Your task to perform on an android device: turn on data saver in the chrome app Image 0: 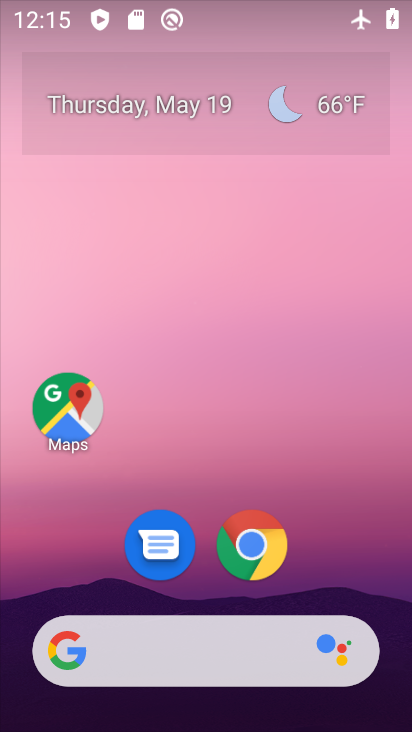
Step 0: click (243, 562)
Your task to perform on an android device: turn on data saver in the chrome app Image 1: 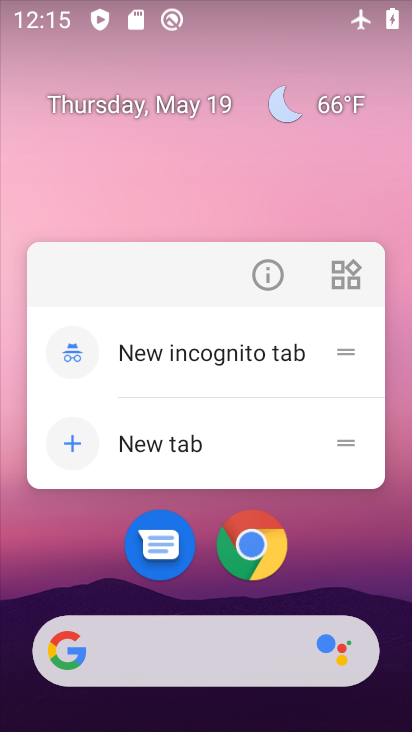
Step 1: click (243, 558)
Your task to perform on an android device: turn on data saver in the chrome app Image 2: 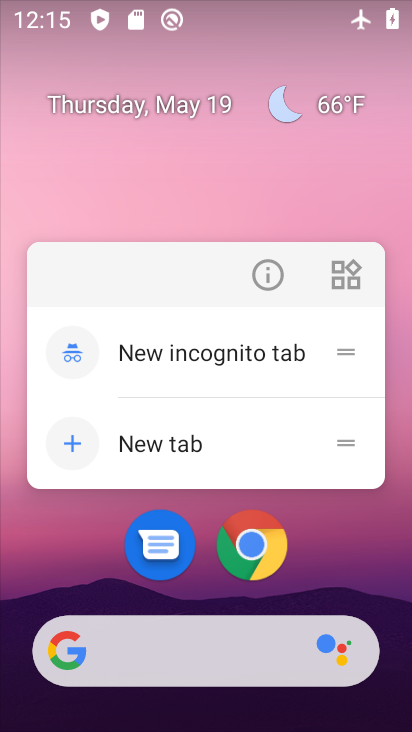
Step 2: click (243, 558)
Your task to perform on an android device: turn on data saver in the chrome app Image 3: 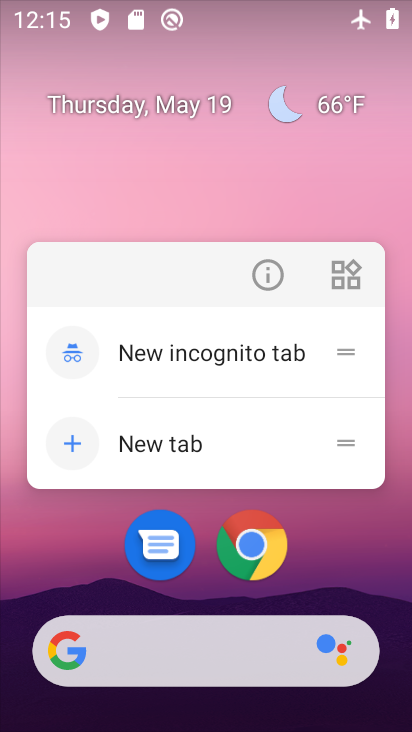
Step 3: click (242, 558)
Your task to perform on an android device: turn on data saver in the chrome app Image 4: 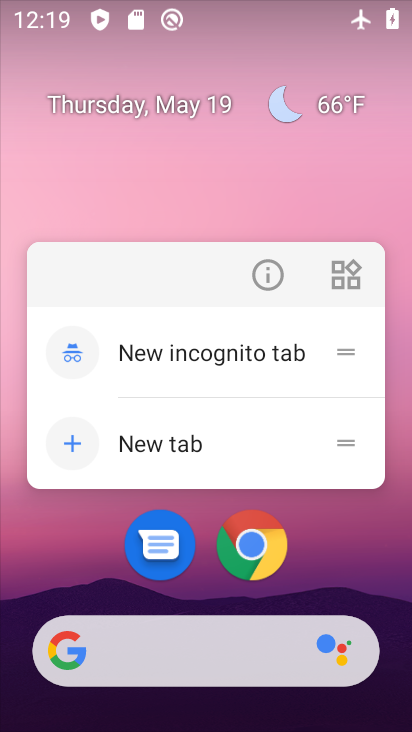
Step 4: click (265, 716)
Your task to perform on an android device: turn on data saver in the chrome app Image 5: 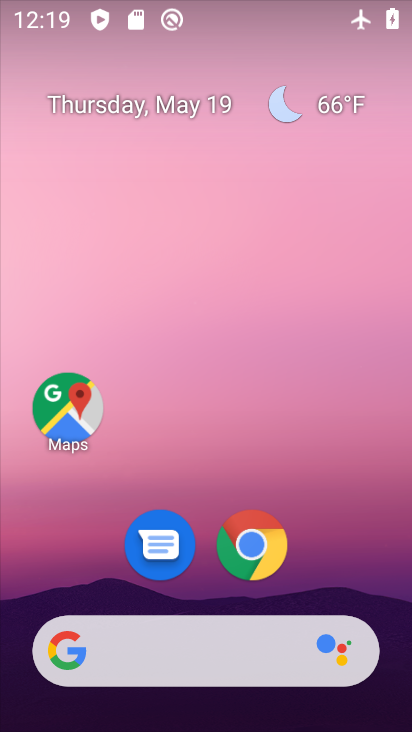
Step 5: click (247, 558)
Your task to perform on an android device: turn on data saver in the chrome app Image 6: 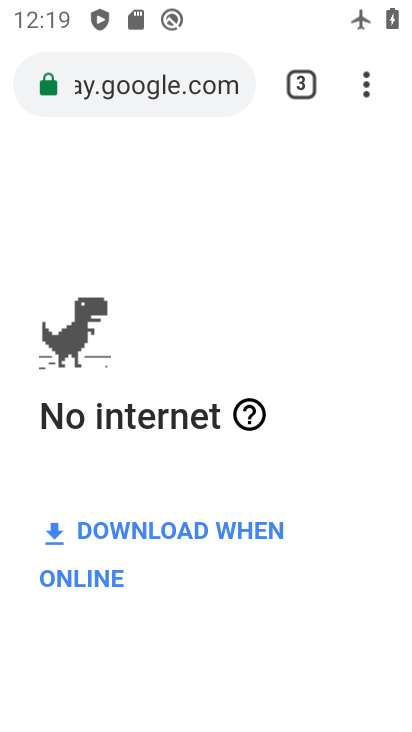
Step 6: click (365, 83)
Your task to perform on an android device: turn on data saver in the chrome app Image 7: 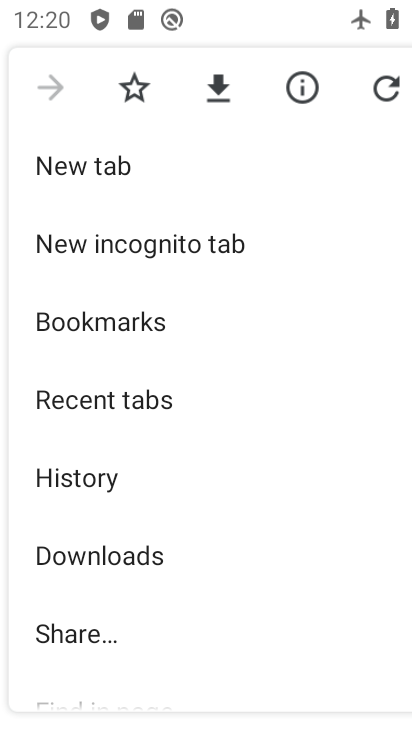
Step 7: drag from (86, 622) to (127, 212)
Your task to perform on an android device: turn on data saver in the chrome app Image 8: 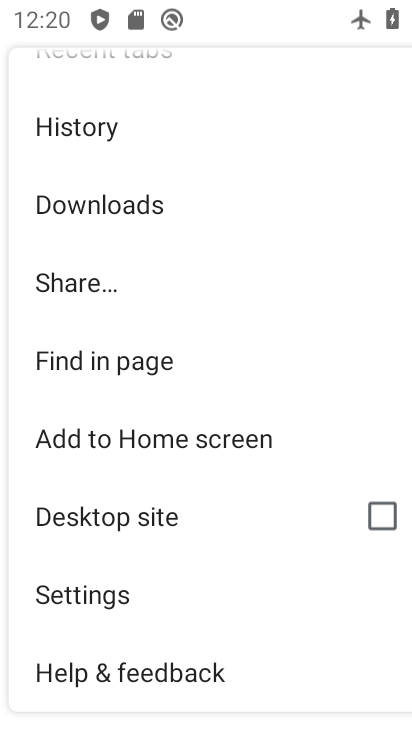
Step 8: click (117, 591)
Your task to perform on an android device: turn on data saver in the chrome app Image 9: 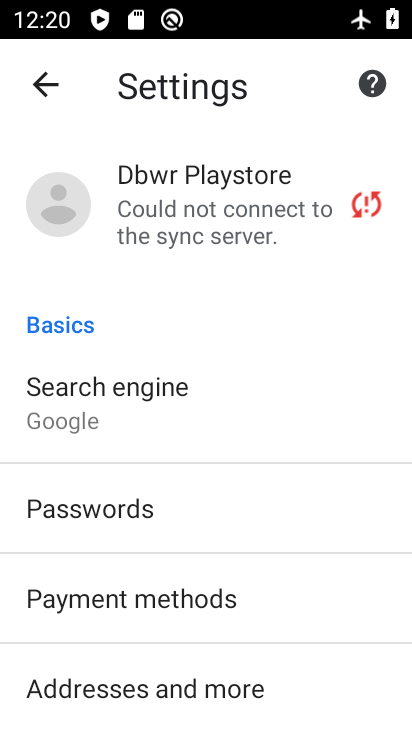
Step 9: drag from (243, 646) to (247, 122)
Your task to perform on an android device: turn on data saver in the chrome app Image 10: 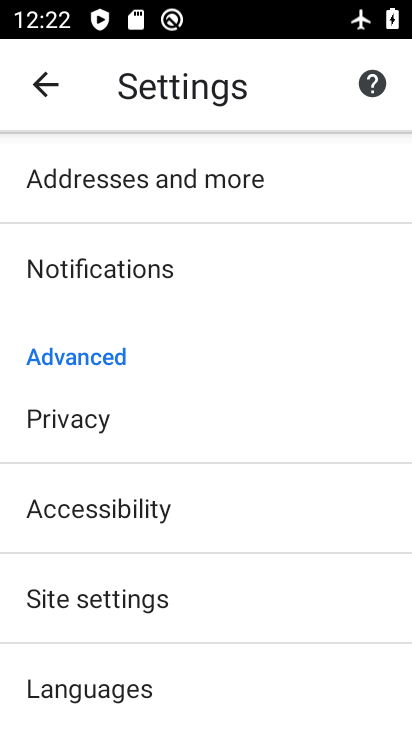
Step 10: press home button
Your task to perform on an android device: turn on data saver in the chrome app Image 11: 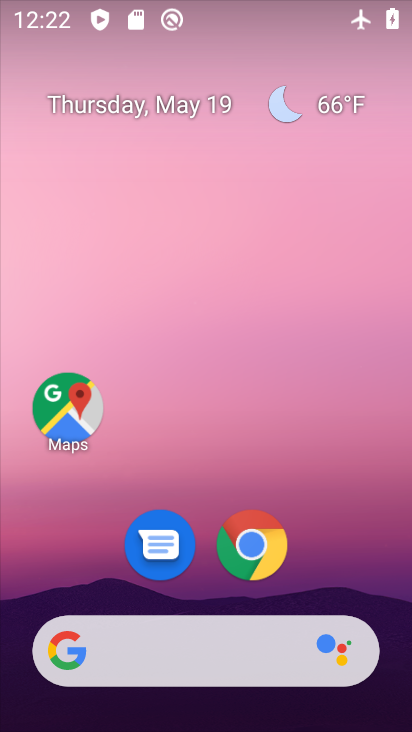
Step 11: type "data"
Your task to perform on an android device: turn on data saver in the chrome app Image 12: 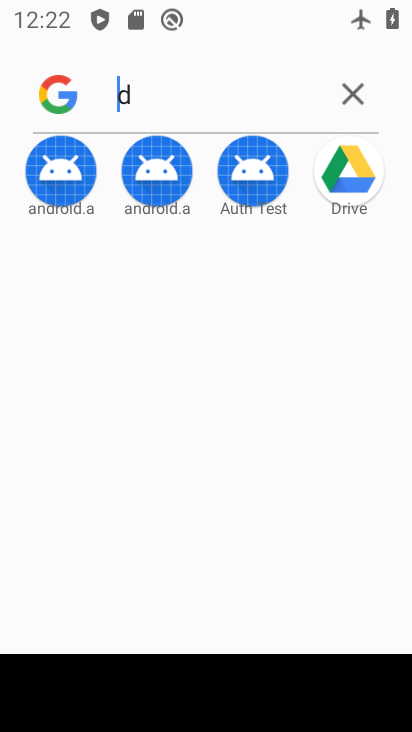
Step 12: type "data"
Your task to perform on an android device: turn on data saver in the chrome app Image 13: 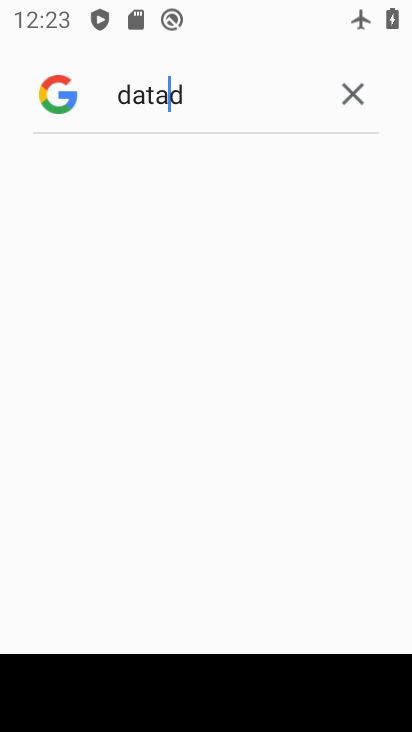
Step 13: press home button
Your task to perform on an android device: turn on data saver in the chrome app Image 14: 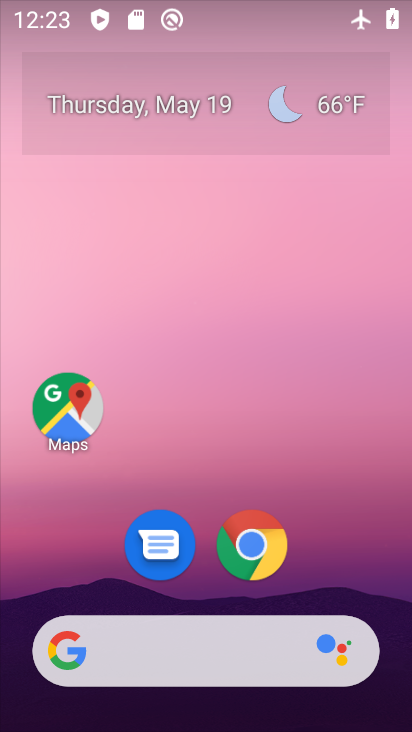
Step 14: click (252, 545)
Your task to perform on an android device: turn on data saver in the chrome app Image 15: 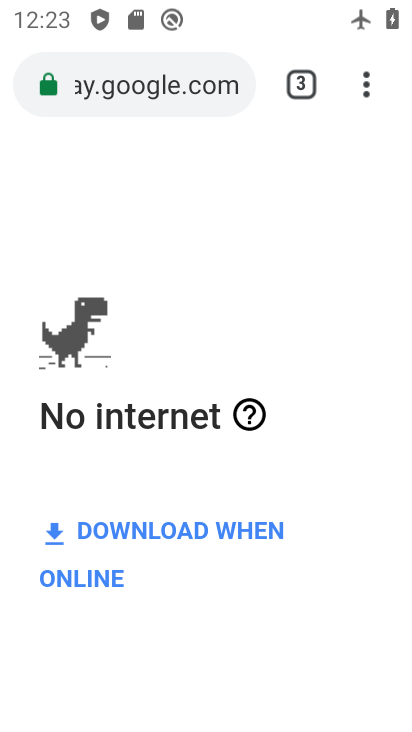
Step 15: click (373, 76)
Your task to perform on an android device: turn on data saver in the chrome app Image 16: 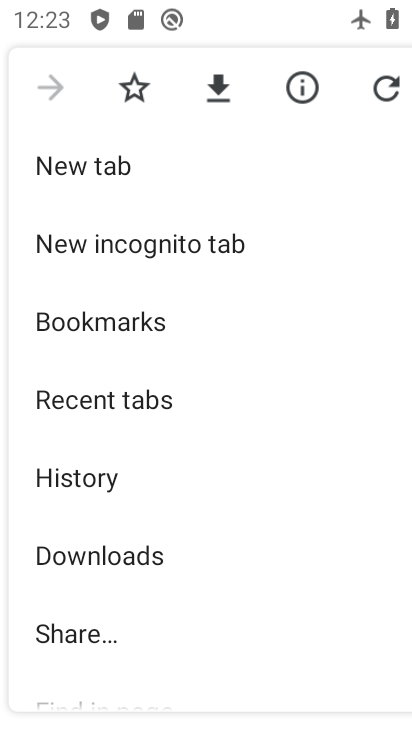
Step 16: drag from (170, 664) to (256, 230)
Your task to perform on an android device: turn on data saver in the chrome app Image 17: 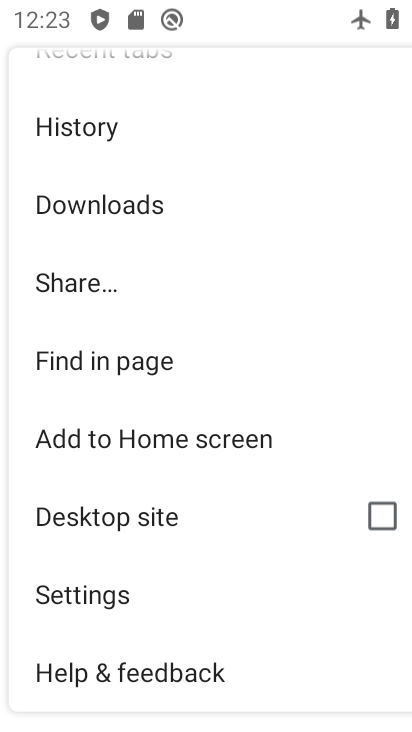
Step 17: click (74, 594)
Your task to perform on an android device: turn on data saver in the chrome app Image 18: 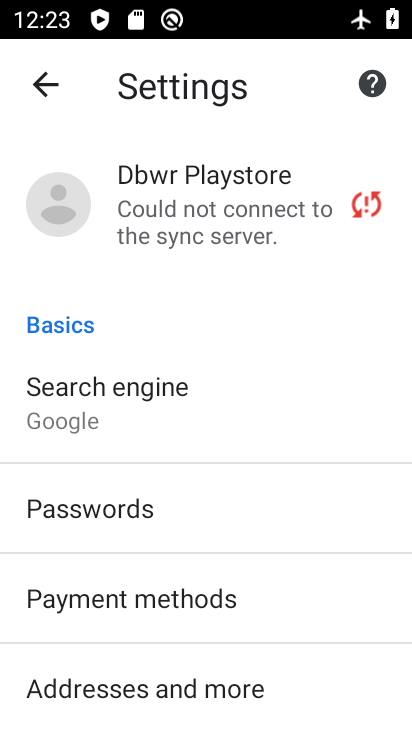
Step 18: drag from (258, 613) to (353, 50)
Your task to perform on an android device: turn on data saver in the chrome app Image 19: 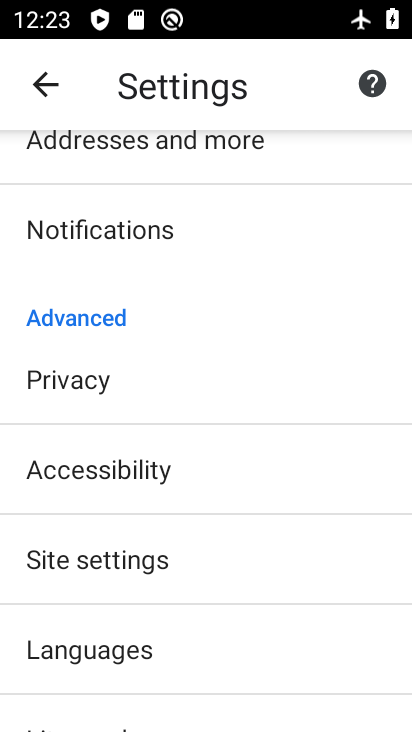
Step 19: drag from (182, 667) to (219, 261)
Your task to perform on an android device: turn on data saver in the chrome app Image 20: 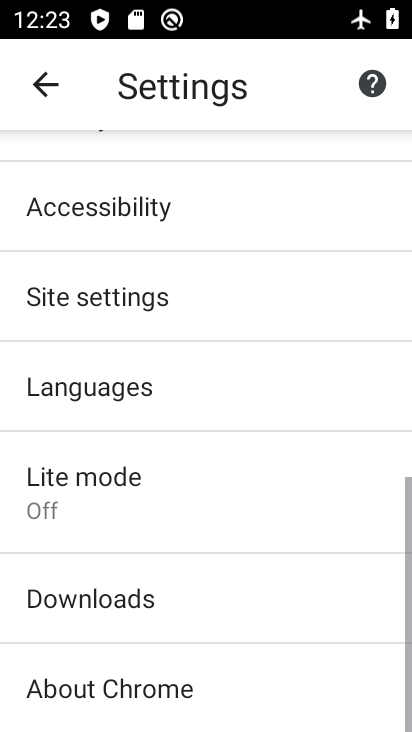
Step 20: click (98, 511)
Your task to perform on an android device: turn on data saver in the chrome app Image 21: 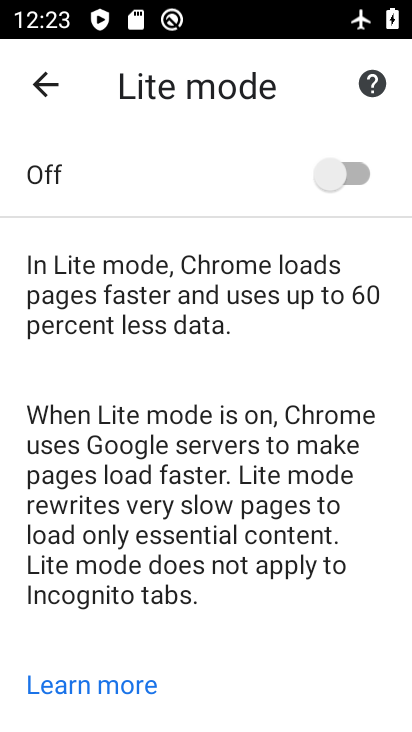
Step 21: click (346, 174)
Your task to perform on an android device: turn on data saver in the chrome app Image 22: 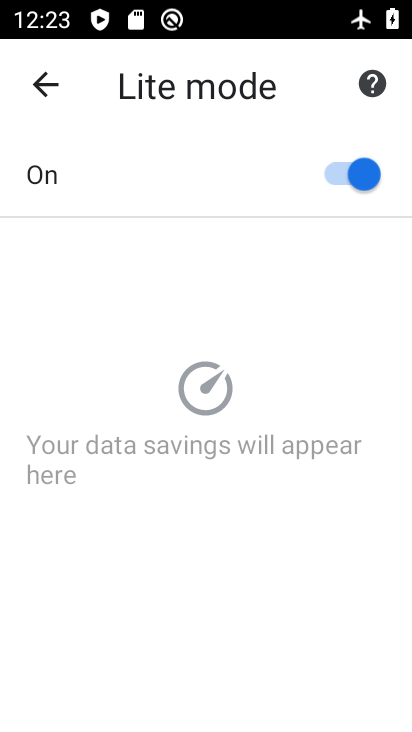
Step 22: task complete